Your task to perform on an android device: What's the weather? Image 0: 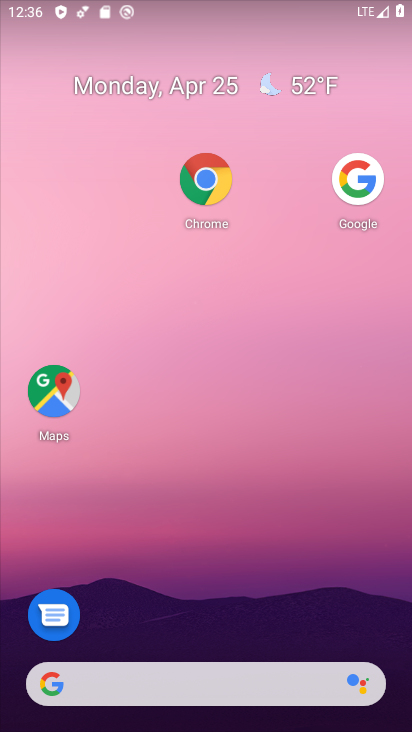
Step 0: drag from (171, 651) to (329, 58)
Your task to perform on an android device: What's the weather? Image 1: 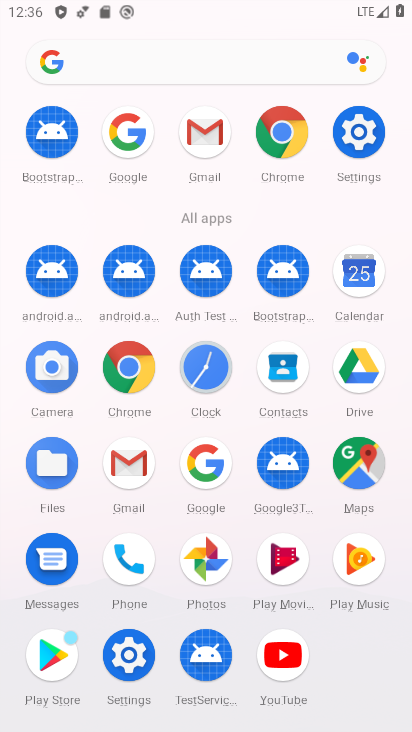
Step 1: click (201, 468)
Your task to perform on an android device: What's the weather? Image 2: 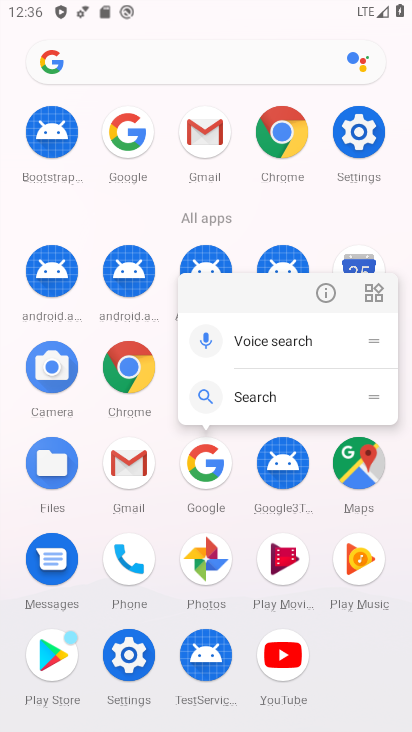
Step 2: click (209, 468)
Your task to perform on an android device: What's the weather? Image 3: 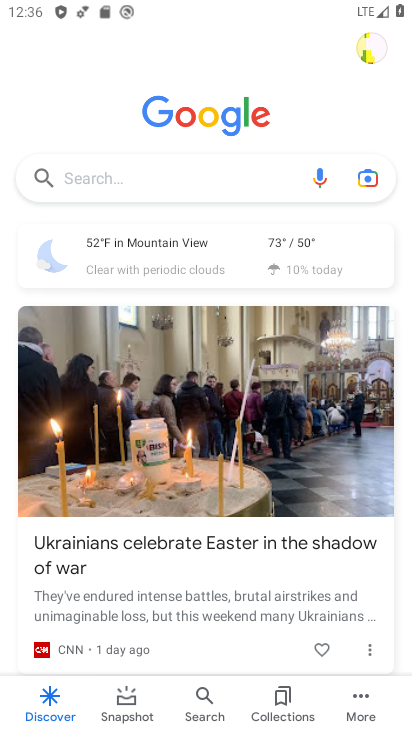
Step 3: click (176, 243)
Your task to perform on an android device: What's the weather? Image 4: 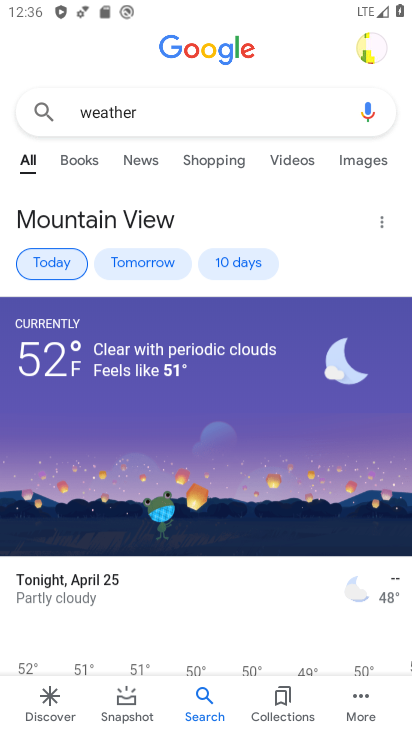
Step 4: task complete